Your task to perform on an android device: turn pop-ups off in chrome Image 0: 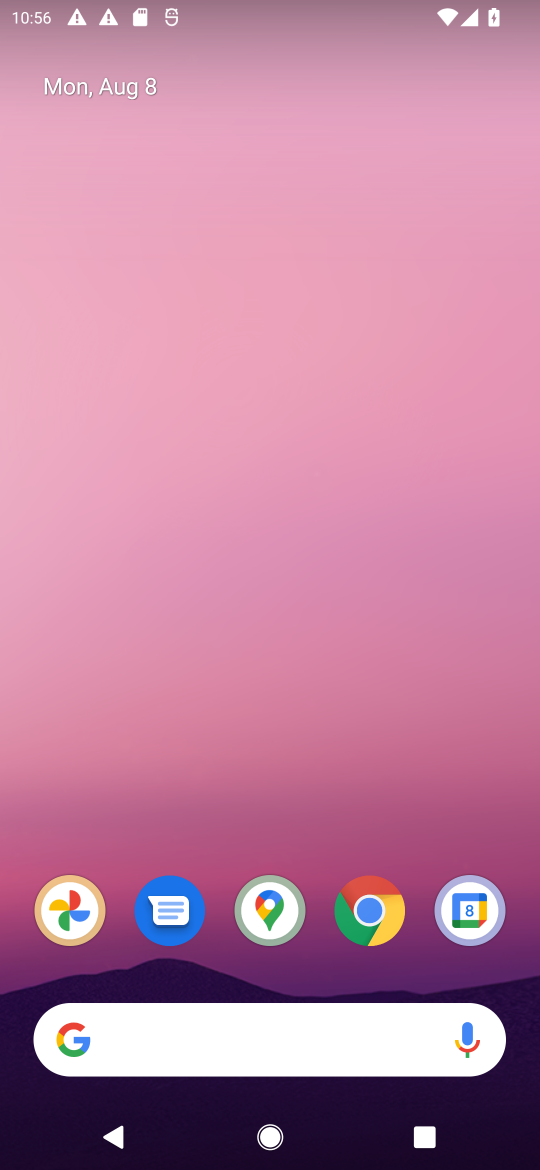
Step 0: click (347, 918)
Your task to perform on an android device: turn pop-ups off in chrome Image 1: 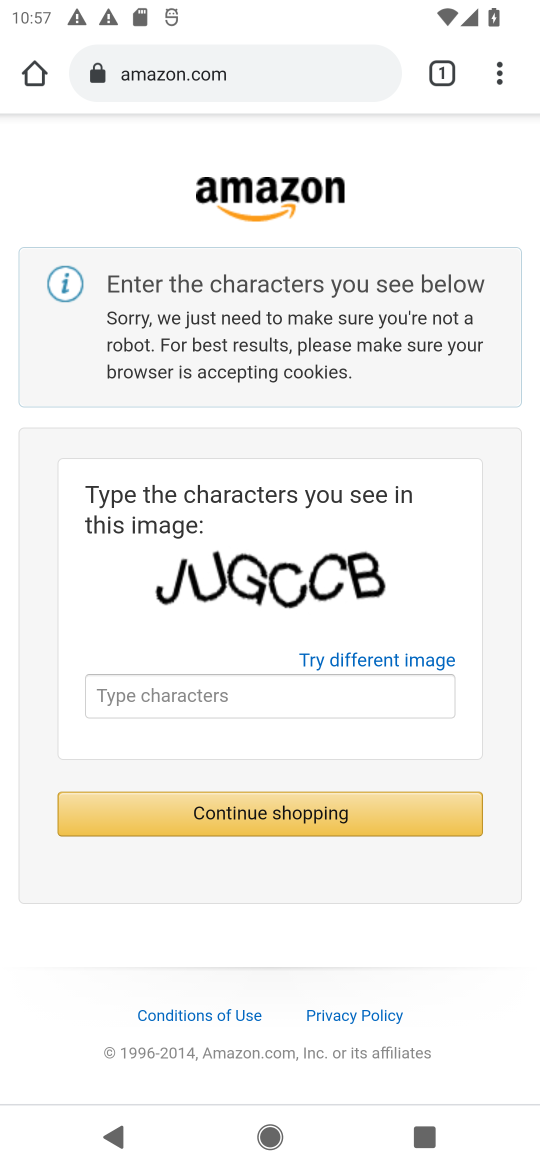
Step 1: click (495, 70)
Your task to perform on an android device: turn pop-ups off in chrome Image 2: 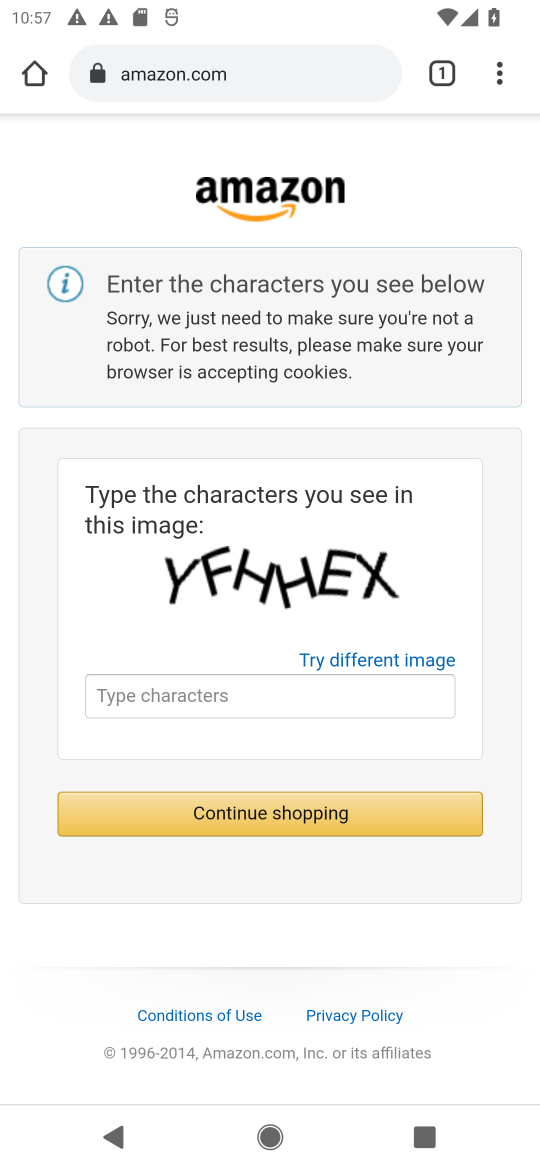
Step 2: click (490, 70)
Your task to perform on an android device: turn pop-ups off in chrome Image 3: 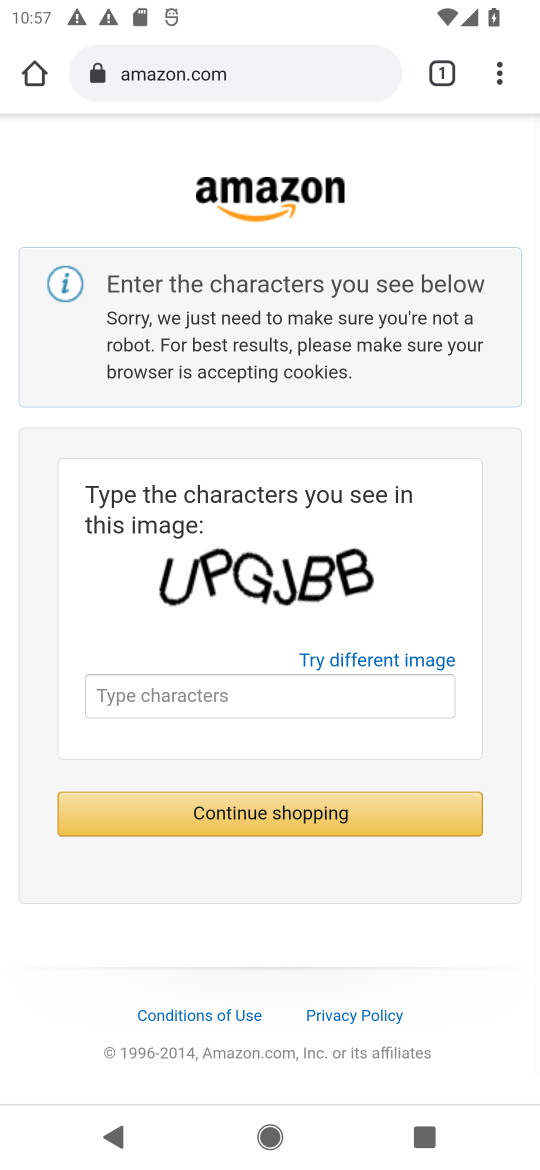
Step 3: drag from (486, 67) to (271, 867)
Your task to perform on an android device: turn pop-ups off in chrome Image 4: 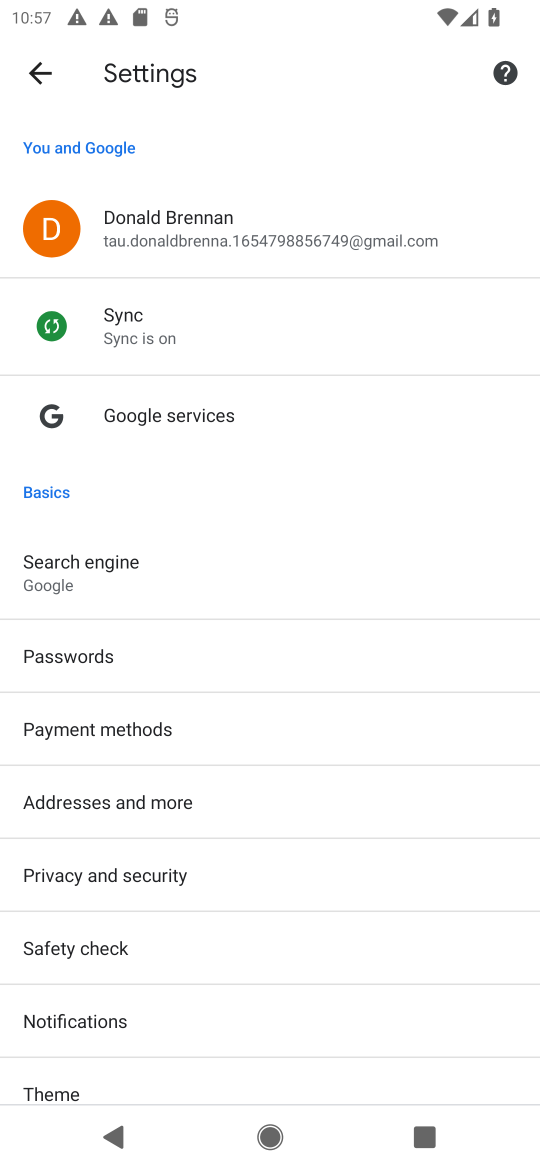
Step 4: drag from (115, 970) to (71, 355)
Your task to perform on an android device: turn pop-ups off in chrome Image 5: 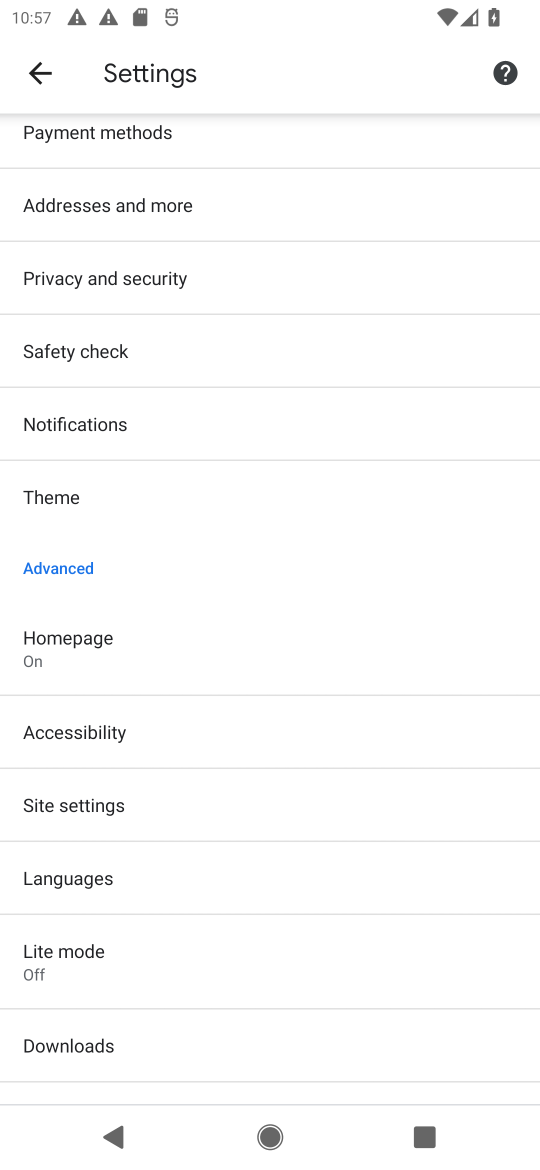
Step 5: click (103, 814)
Your task to perform on an android device: turn pop-ups off in chrome Image 6: 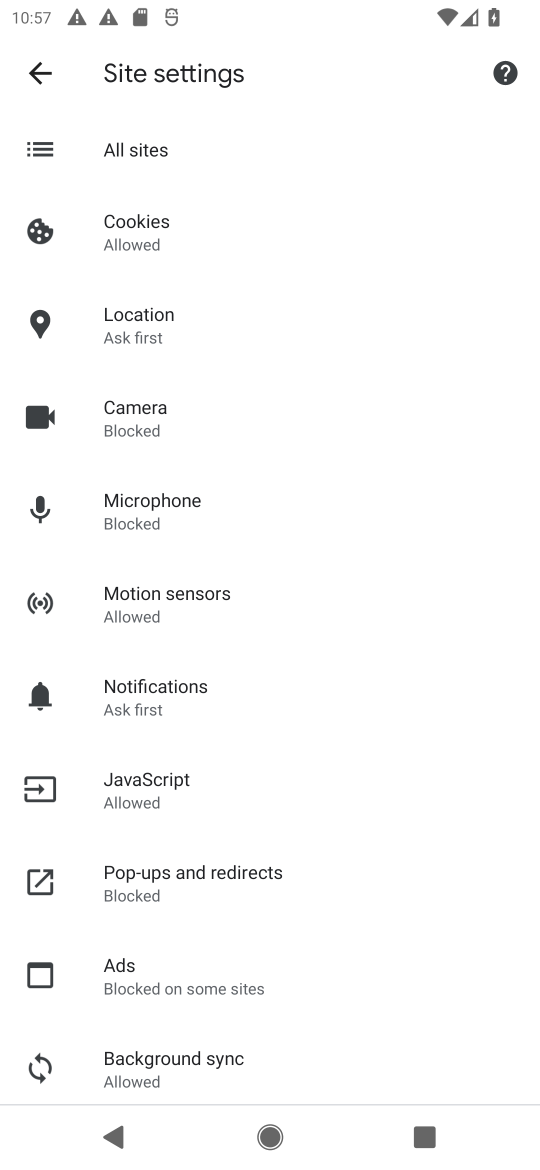
Step 6: click (182, 890)
Your task to perform on an android device: turn pop-ups off in chrome Image 7: 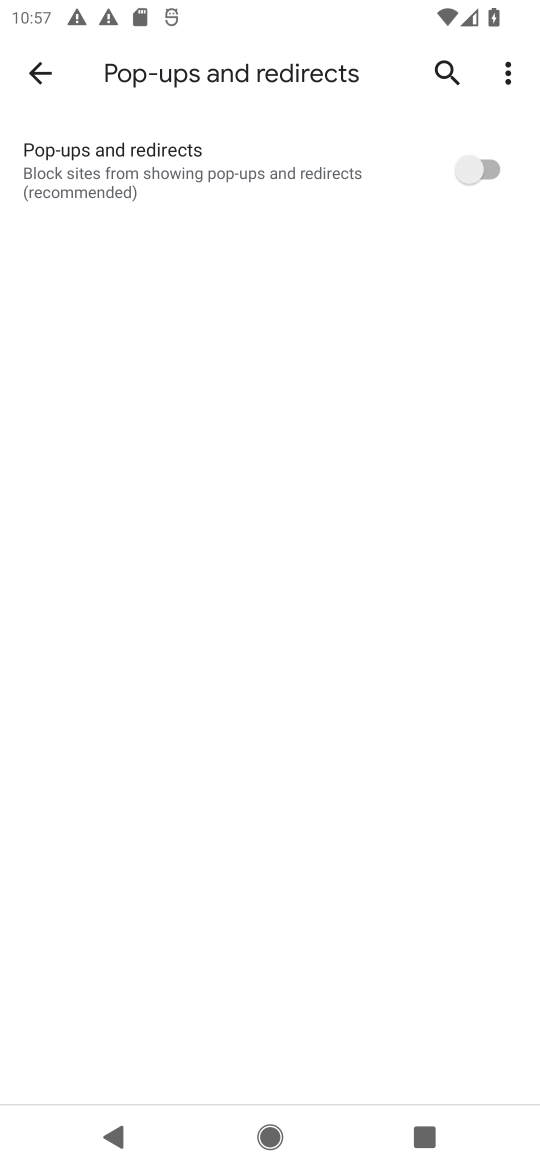
Step 7: task complete